Your task to perform on an android device: open app "Adobe Acrobat Reader: Edit PDF" (install if not already installed) Image 0: 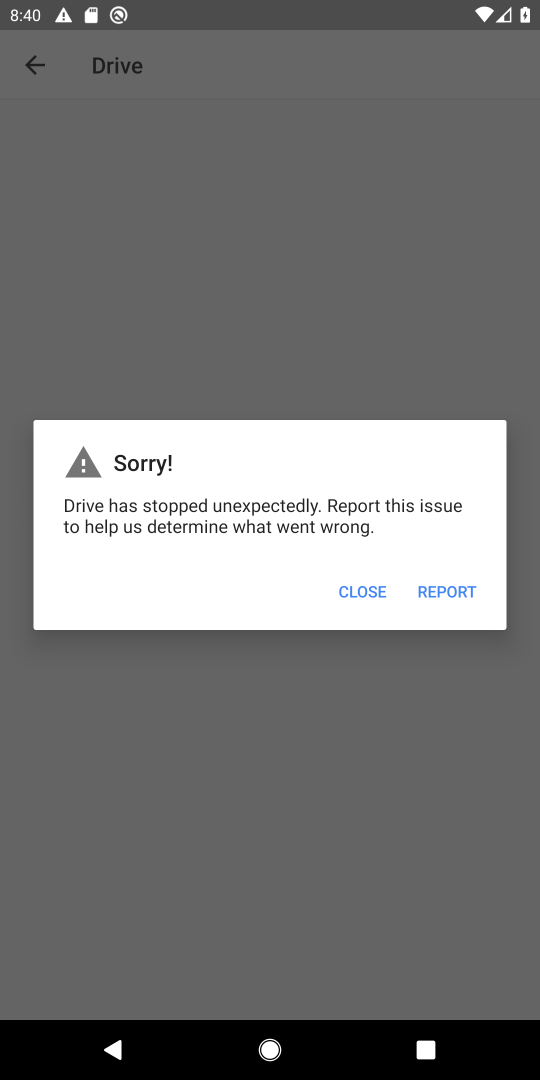
Step 0: press home button
Your task to perform on an android device: open app "Adobe Acrobat Reader: Edit PDF" (install if not already installed) Image 1: 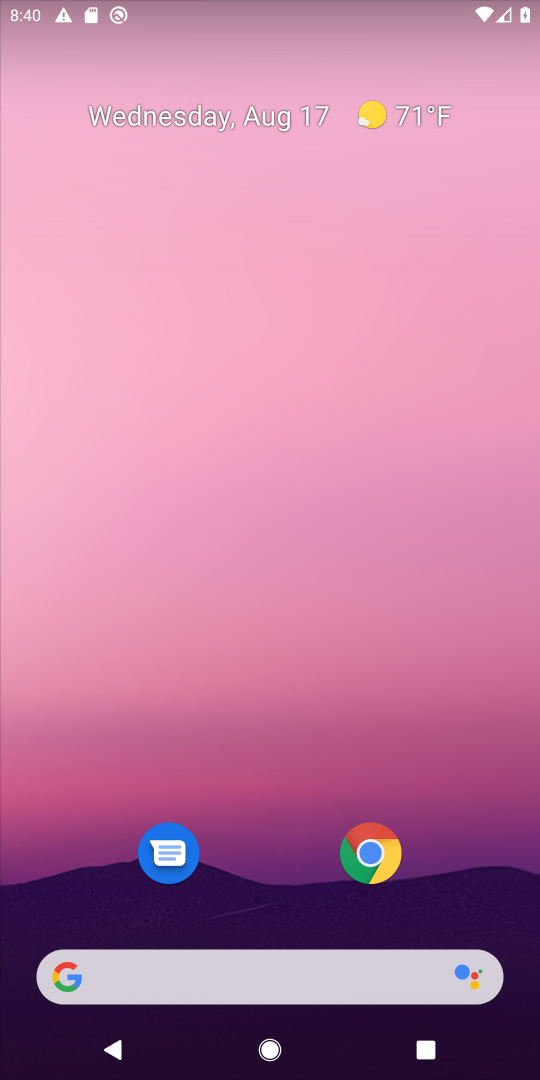
Step 1: drag from (256, 869) to (265, 133)
Your task to perform on an android device: open app "Adobe Acrobat Reader: Edit PDF" (install if not already installed) Image 2: 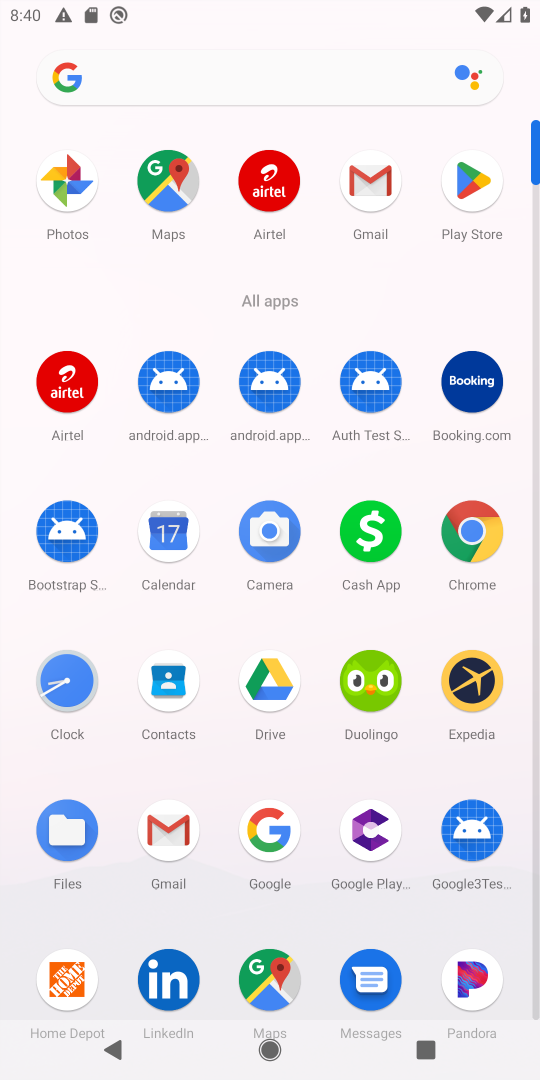
Step 2: click (466, 173)
Your task to perform on an android device: open app "Adobe Acrobat Reader: Edit PDF" (install if not already installed) Image 3: 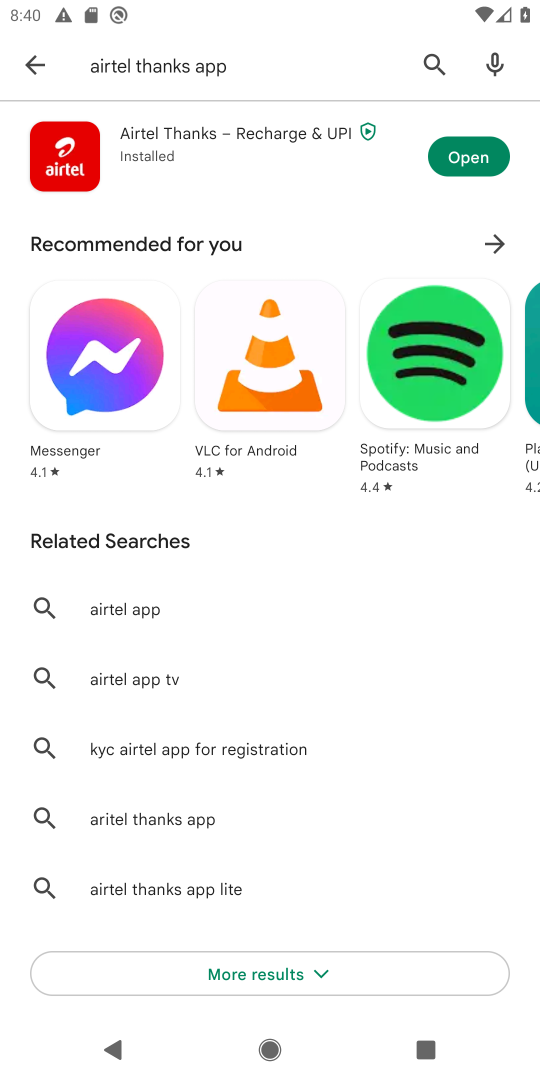
Step 3: click (418, 59)
Your task to perform on an android device: open app "Adobe Acrobat Reader: Edit PDF" (install if not already installed) Image 4: 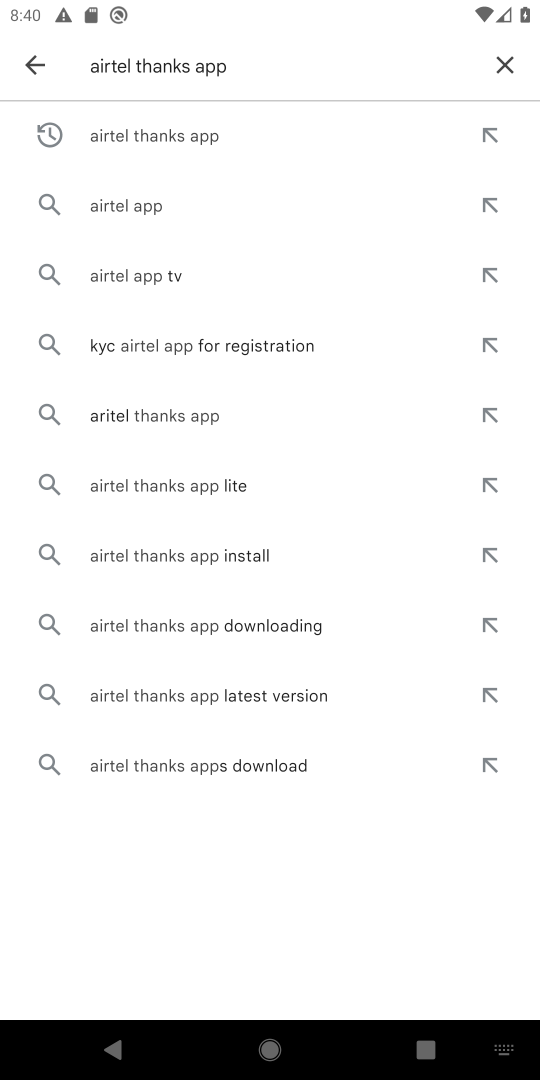
Step 4: click (509, 72)
Your task to perform on an android device: open app "Adobe Acrobat Reader: Edit PDF" (install if not already installed) Image 5: 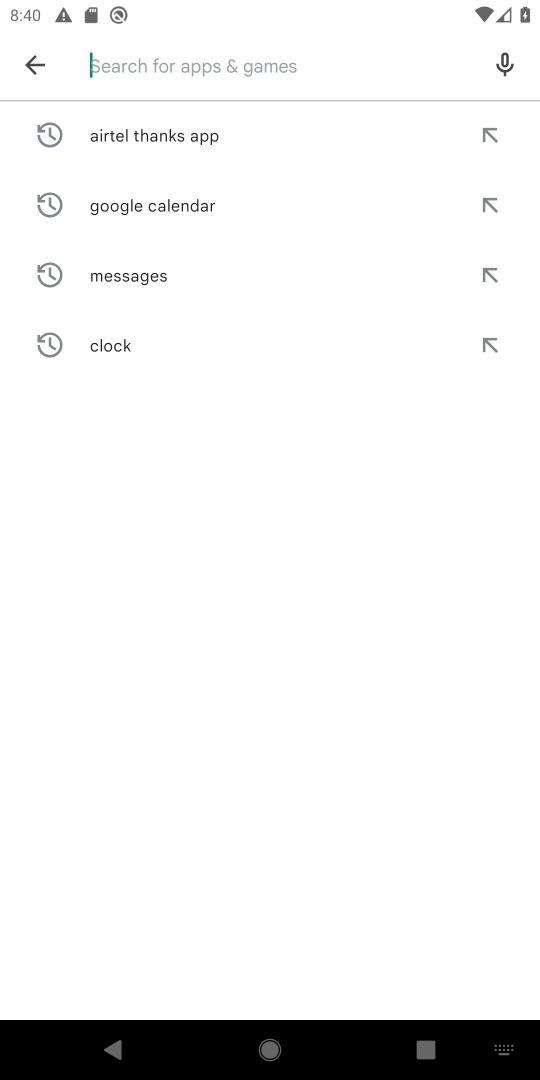
Step 5: type "Adobe Acrobat Reader: Edit PDF"
Your task to perform on an android device: open app "Adobe Acrobat Reader: Edit PDF" (install if not already installed) Image 6: 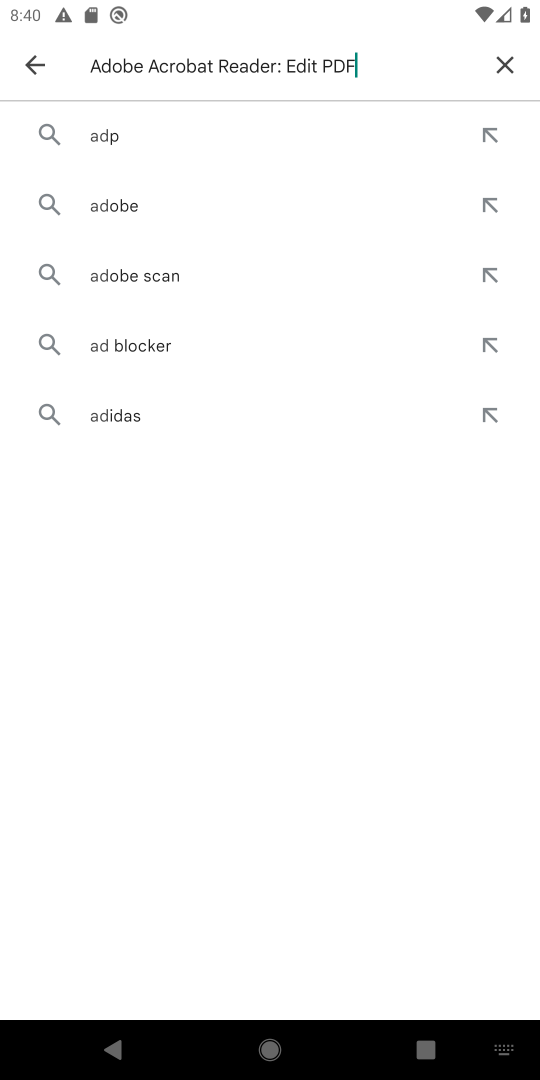
Step 6: type ""
Your task to perform on an android device: open app "Adobe Acrobat Reader: Edit PDF" (install if not already installed) Image 7: 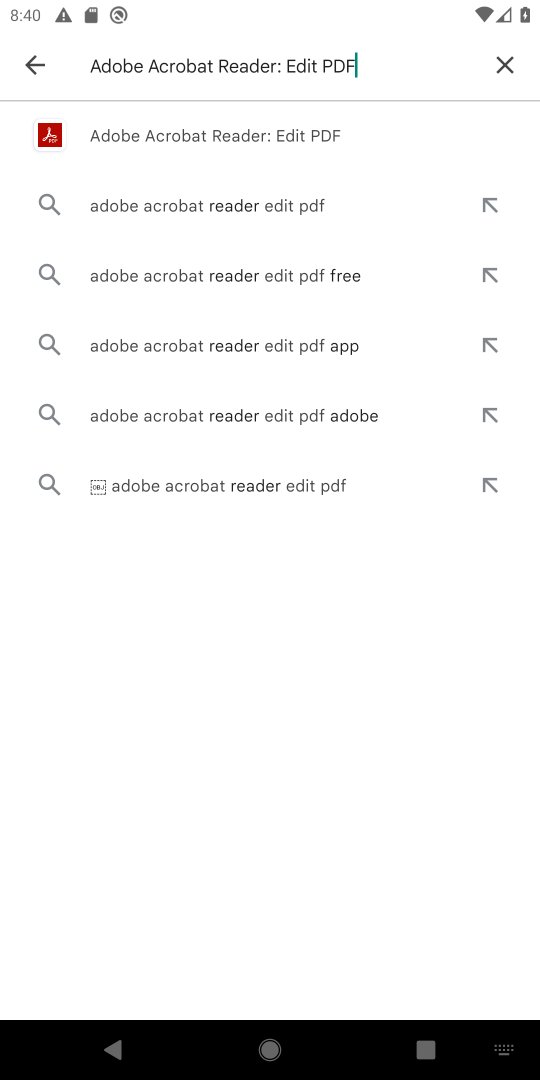
Step 7: click (242, 128)
Your task to perform on an android device: open app "Adobe Acrobat Reader: Edit PDF" (install if not already installed) Image 8: 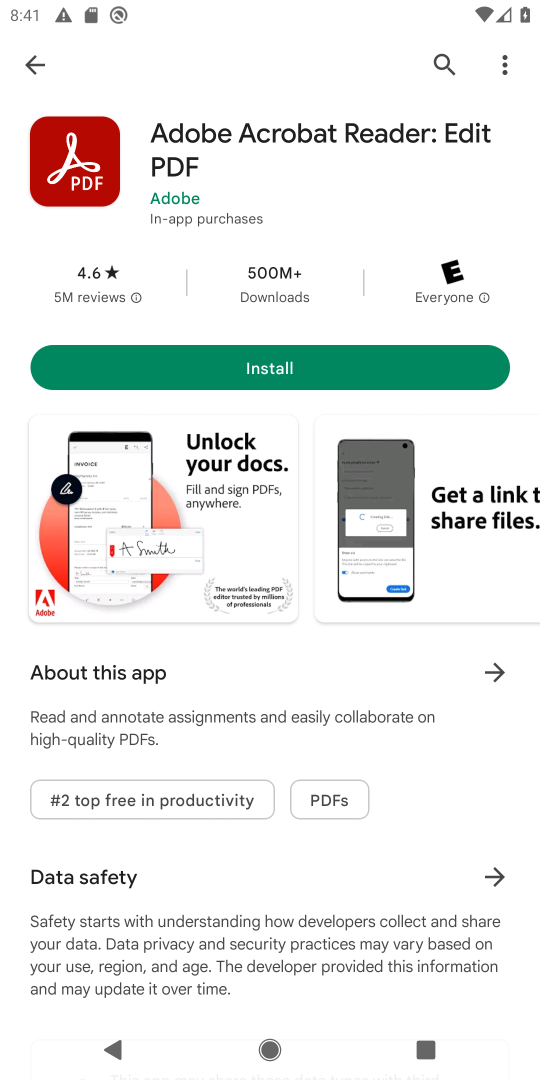
Step 8: click (235, 358)
Your task to perform on an android device: open app "Adobe Acrobat Reader: Edit PDF" (install if not already installed) Image 9: 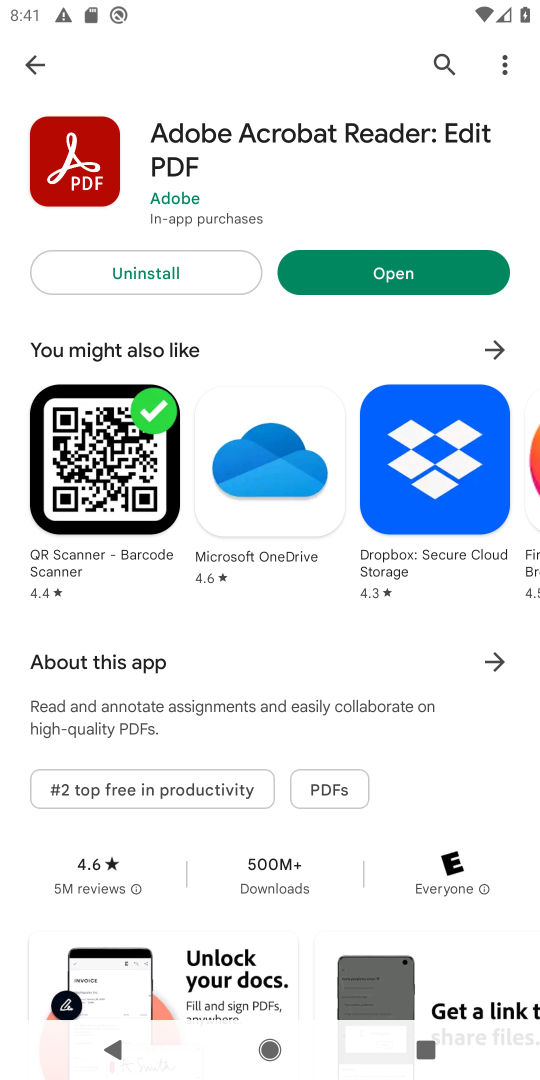
Step 9: click (428, 264)
Your task to perform on an android device: open app "Adobe Acrobat Reader: Edit PDF" (install if not already installed) Image 10: 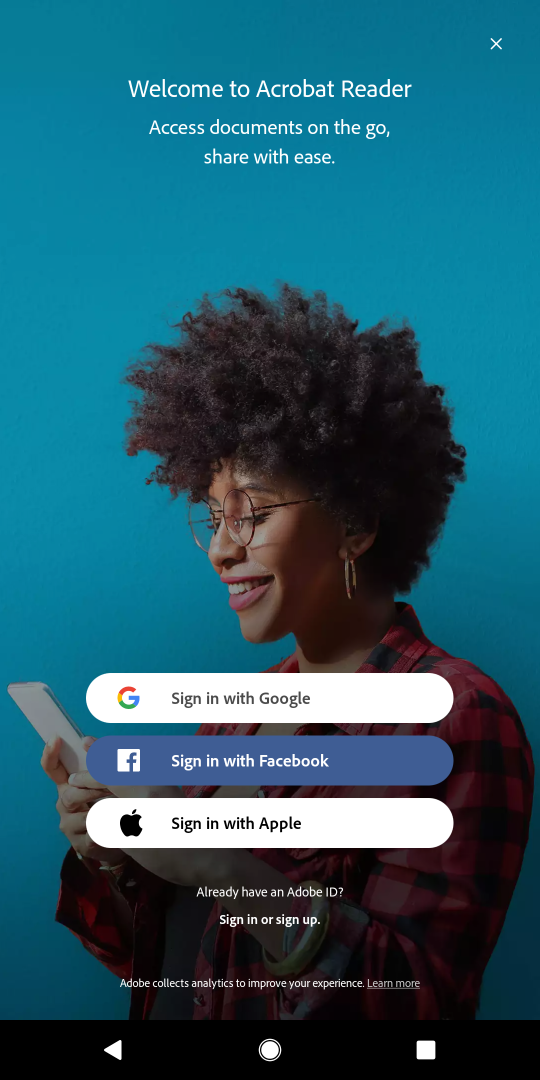
Step 10: task complete